Your task to perform on an android device: What's on my calendar tomorrow? Image 0: 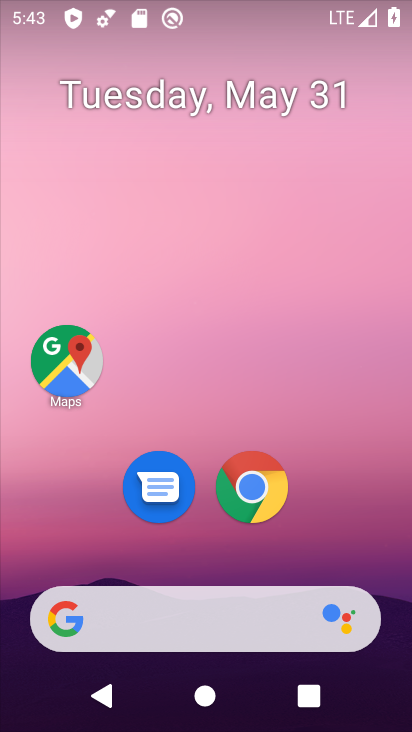
Step 0: drag from (314, 526) to (228, 46)
Your task to perform on an android device: What's on my calendar tomorrow? Image 1: 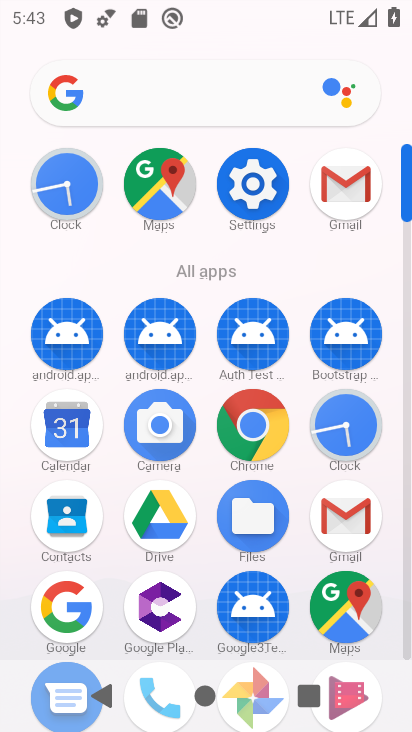
Step 1: click (76, 413)
Your task to perform on an android device: What's on my calendar tomorrow? Image 2: 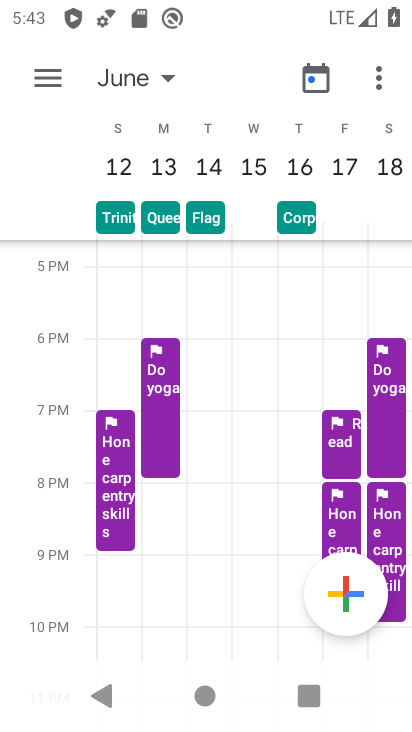
Step 2: click (171, 80)
Your task to perform on an android device: What's on my calendar tomorrow? Image 3: 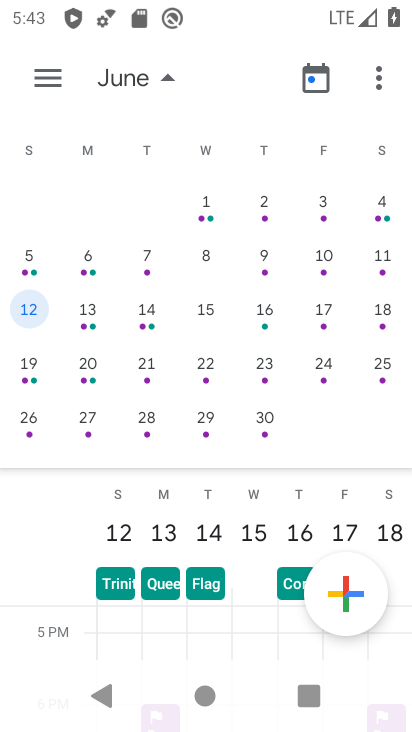
Step 3: click (200, 203)
Your task to perform on an android device: What's on my calendar tomorrow? Image 4: 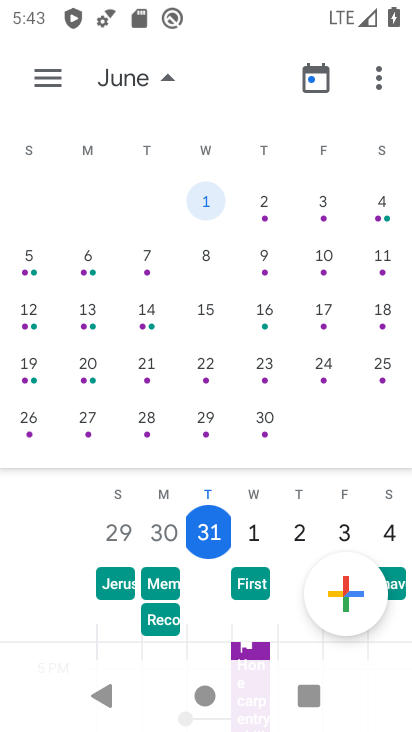
Step 4: click (200, 203)
Your task to perform on an android device: What's on my calendar tomorrow? Image 5: 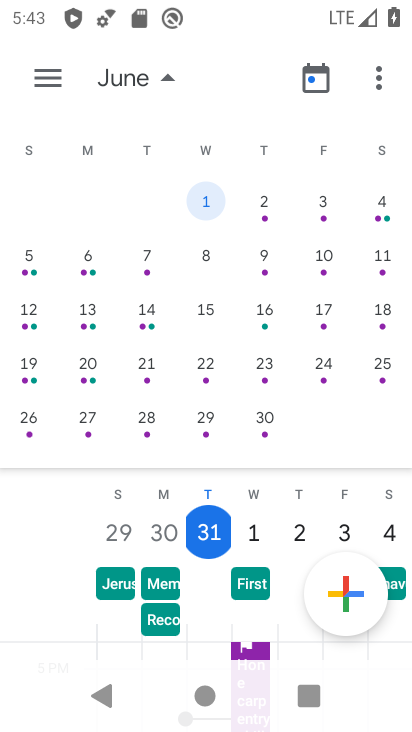
Step 5: click (200, 203)
Your task to perform on an android device: What's on my calendar tomorrow? Image 6: 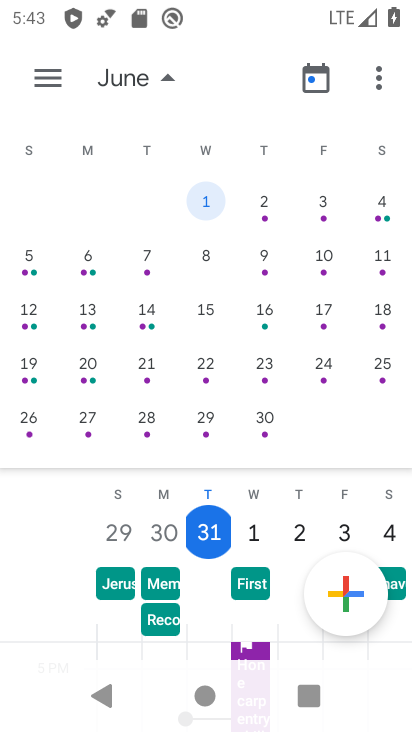
Step 6: click (41, 64)
Your task to perform on an android device: What's on my calendar tomorrow? Image 7: 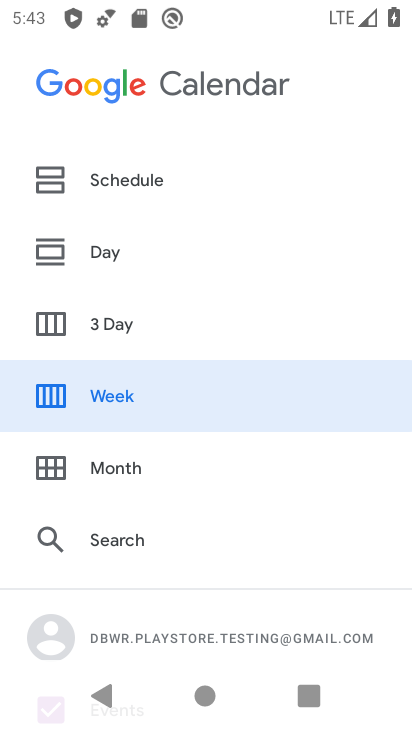
Step 7: click (99, 244)
Your task to perform on an android device: What's on my calendar tomorrow? Image 8: 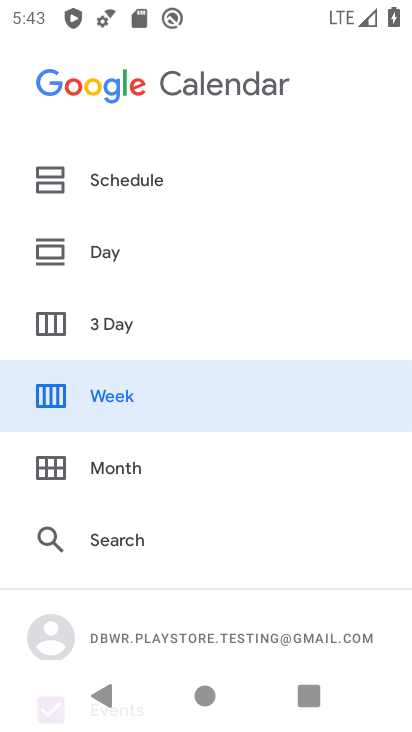
Step 8: click (104, 250)
Your task to perform on an android device: What's on my calendar tomorrow? Image 9: 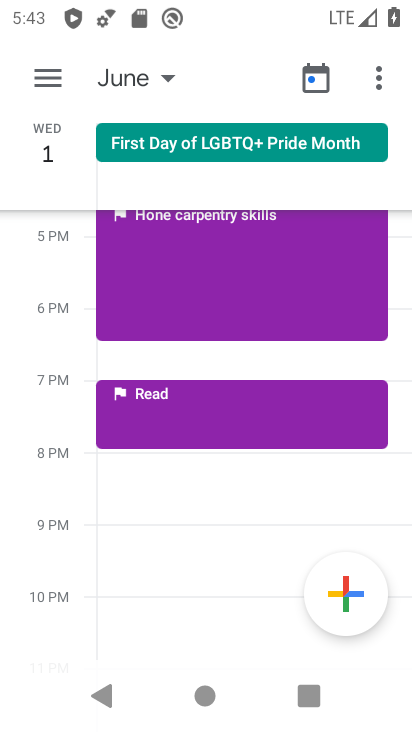
Step 9: task complete